Your task to perform on an android device: check data usage Image 0: 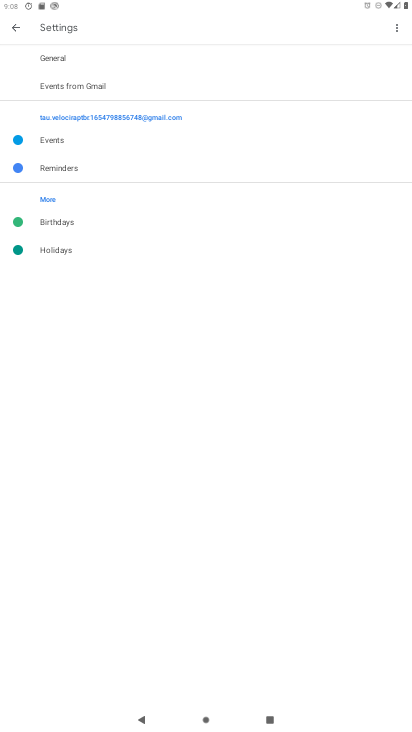
Step 0: press home button
Your task to perform on an android device: check data usage Image 1: 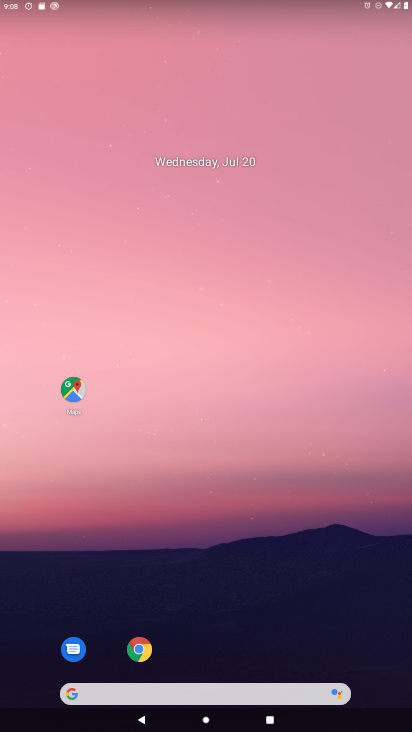
Step 1: drag from (195, 696) to (260, 238)
Your task to perform on an android device: check data usage Image 2: 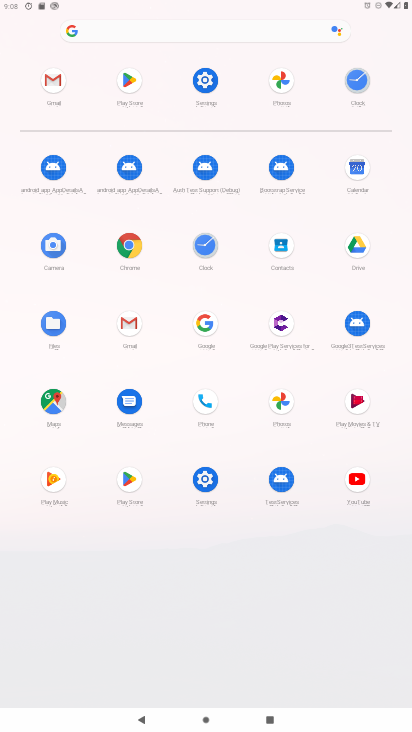
Step 2: click (205, 80)
Your task to perform on an android device: check data usage Image 3: 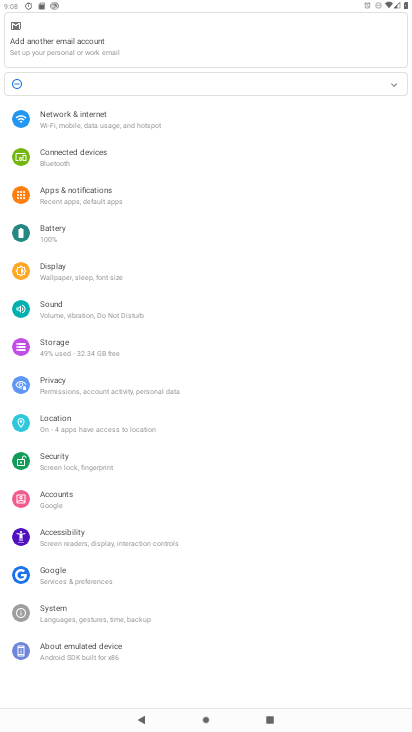
Step 3: click (78, 120)
Your task to perform on an android device: check data usage Image 4: 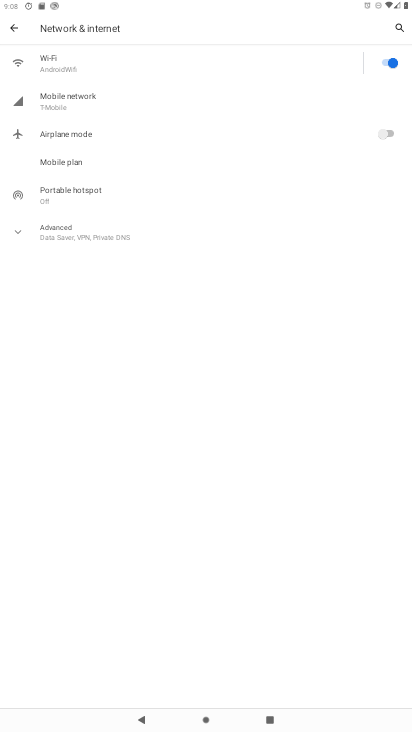
Step 4: click (80, 101)
Your task to perform on an android device: check data usage Image 5: 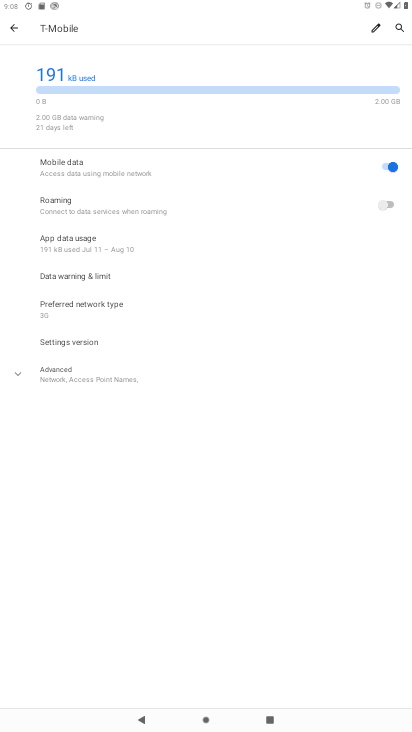
Step 5: task complete